Your task to perform on an android device: Go to notification settings Image 0: 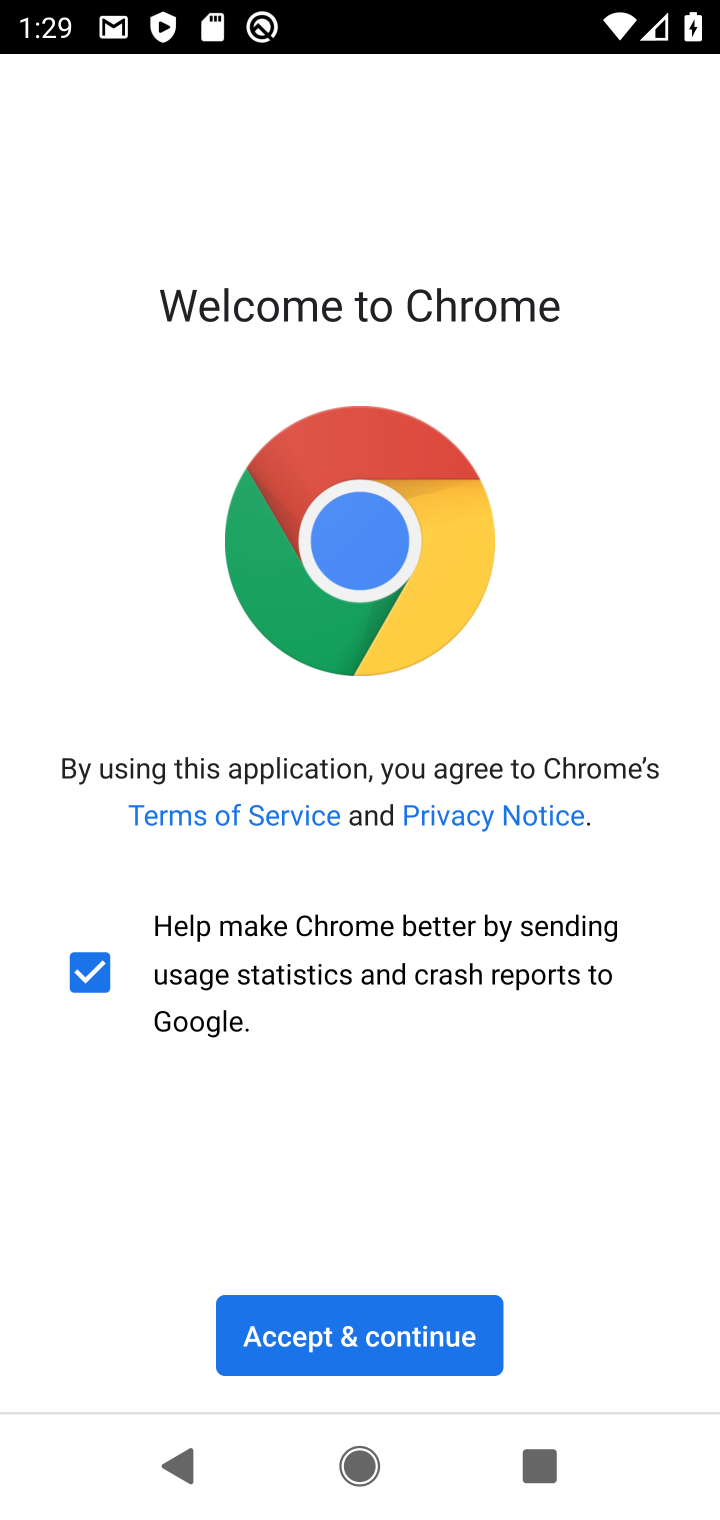
Step 0: press home button
Your task to perform on an android device: Go to notification settings Image 1: 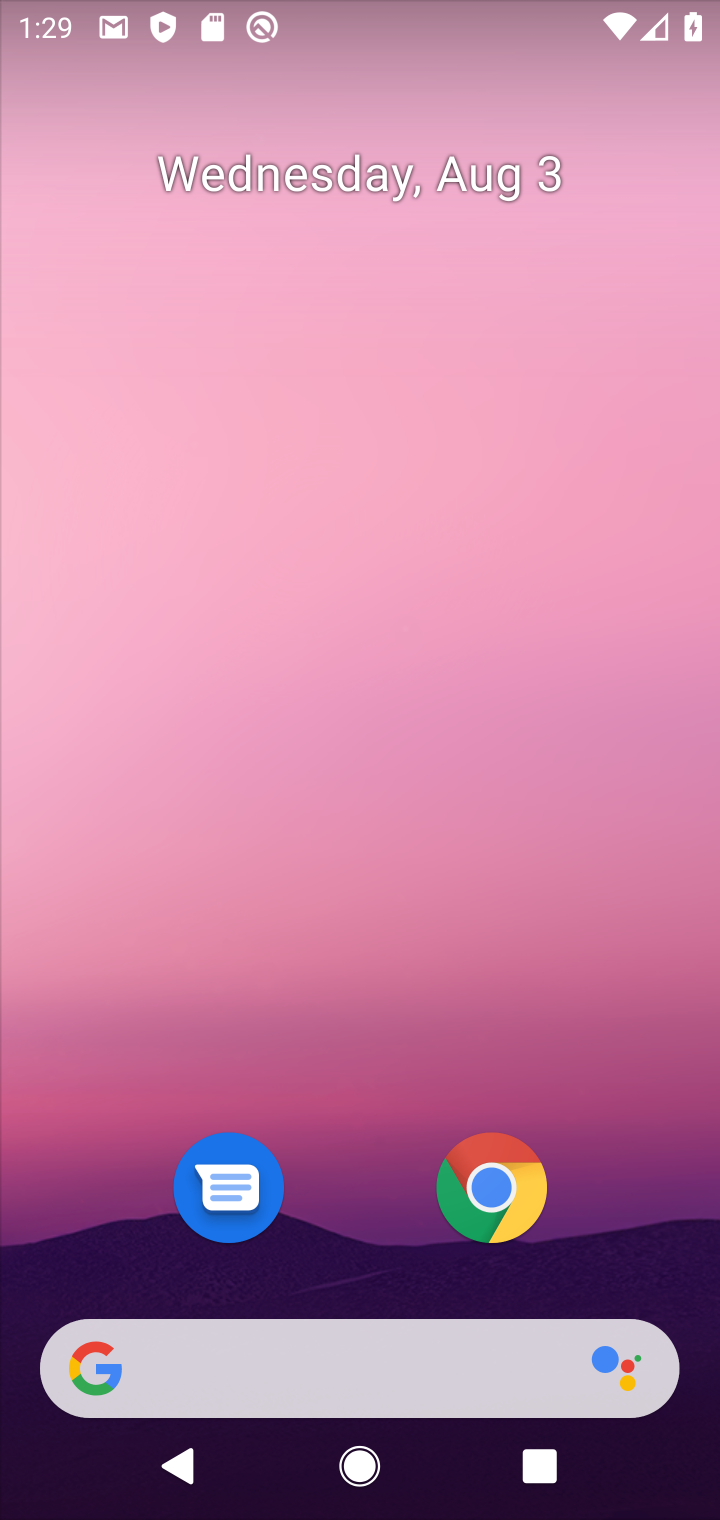
Step 1: drag from (359, 1204) to (322, 178)
Your task to perform on an android device: Go to notification settings Image 2: 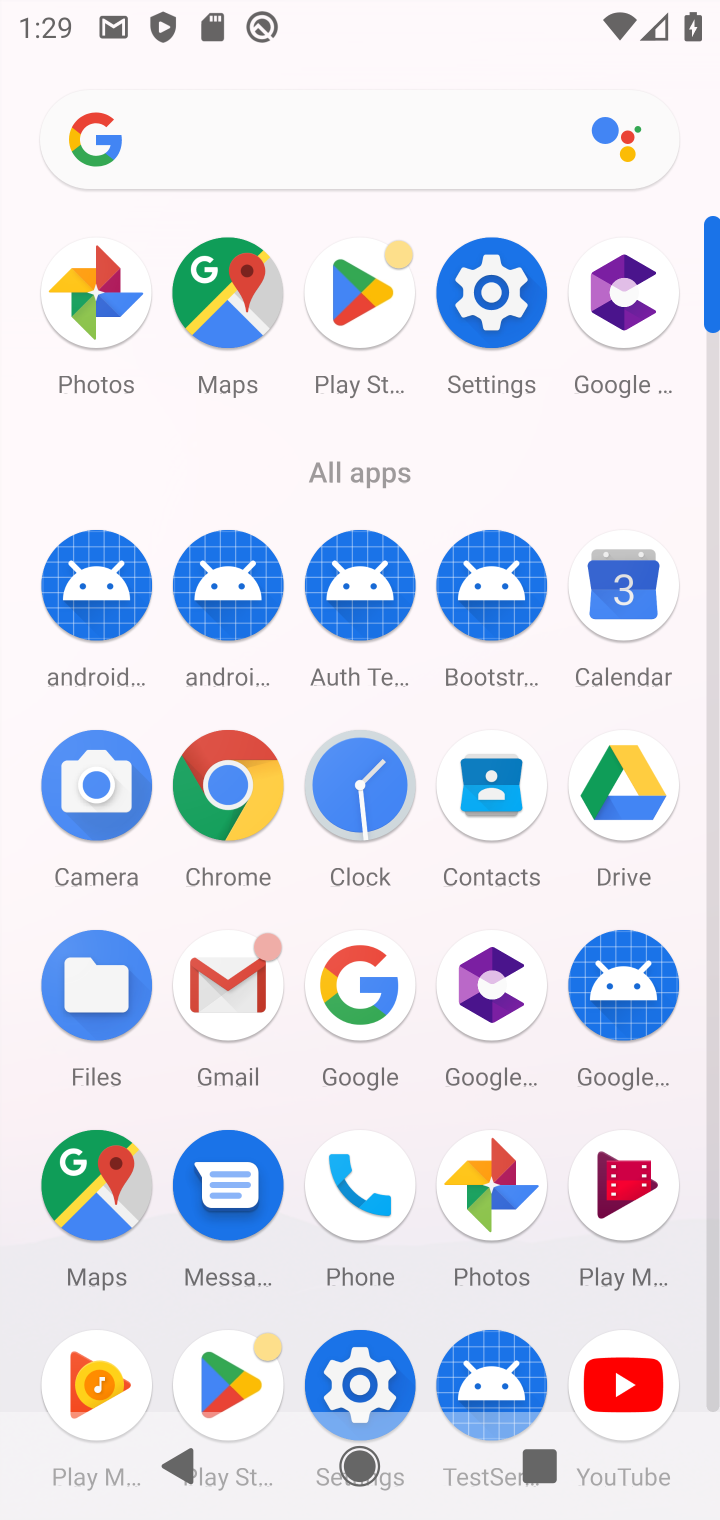
Step 2: click (489, 283)
Your task to perform on an android device: Go to notification settings Image 3: 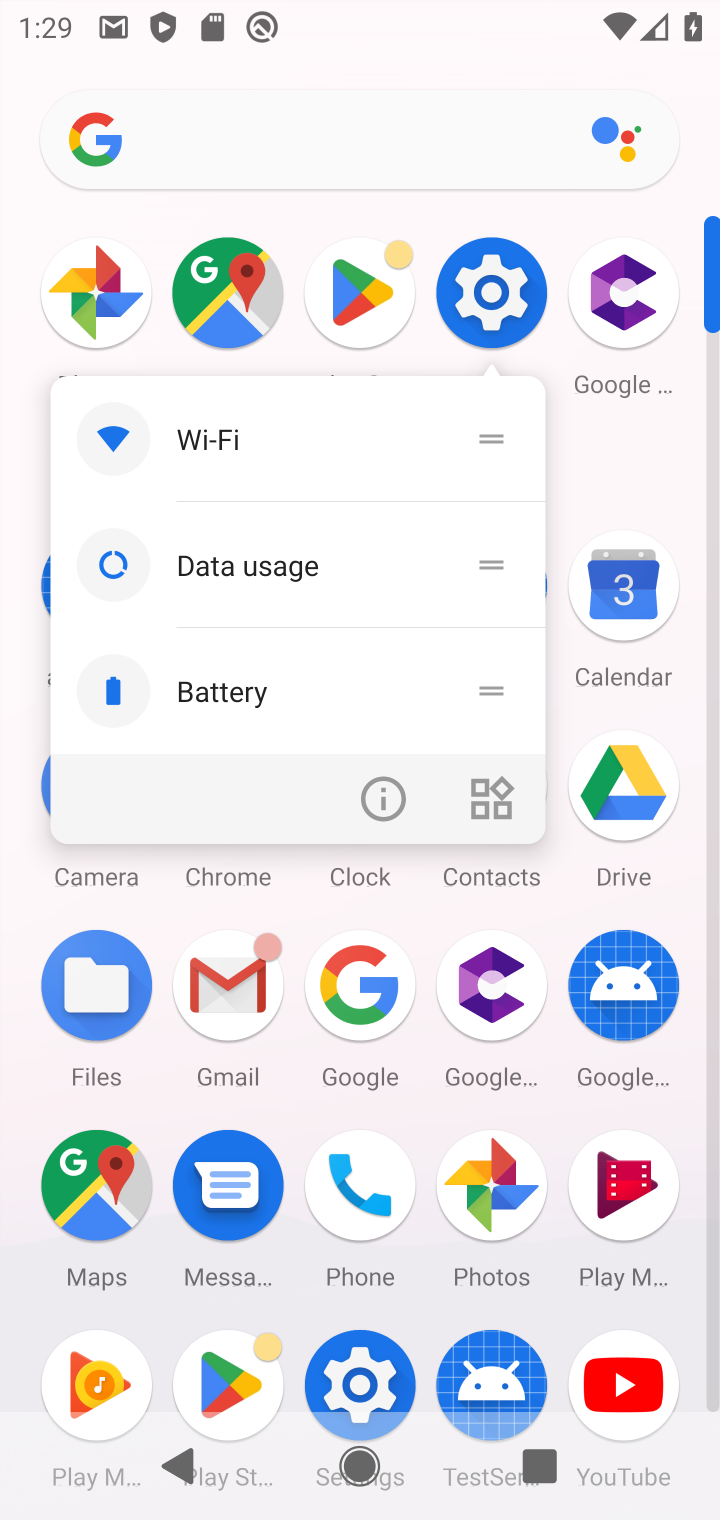
Step 3: click (489, 283)
Your task to perform on an android device: Go to notification settings Image 4: 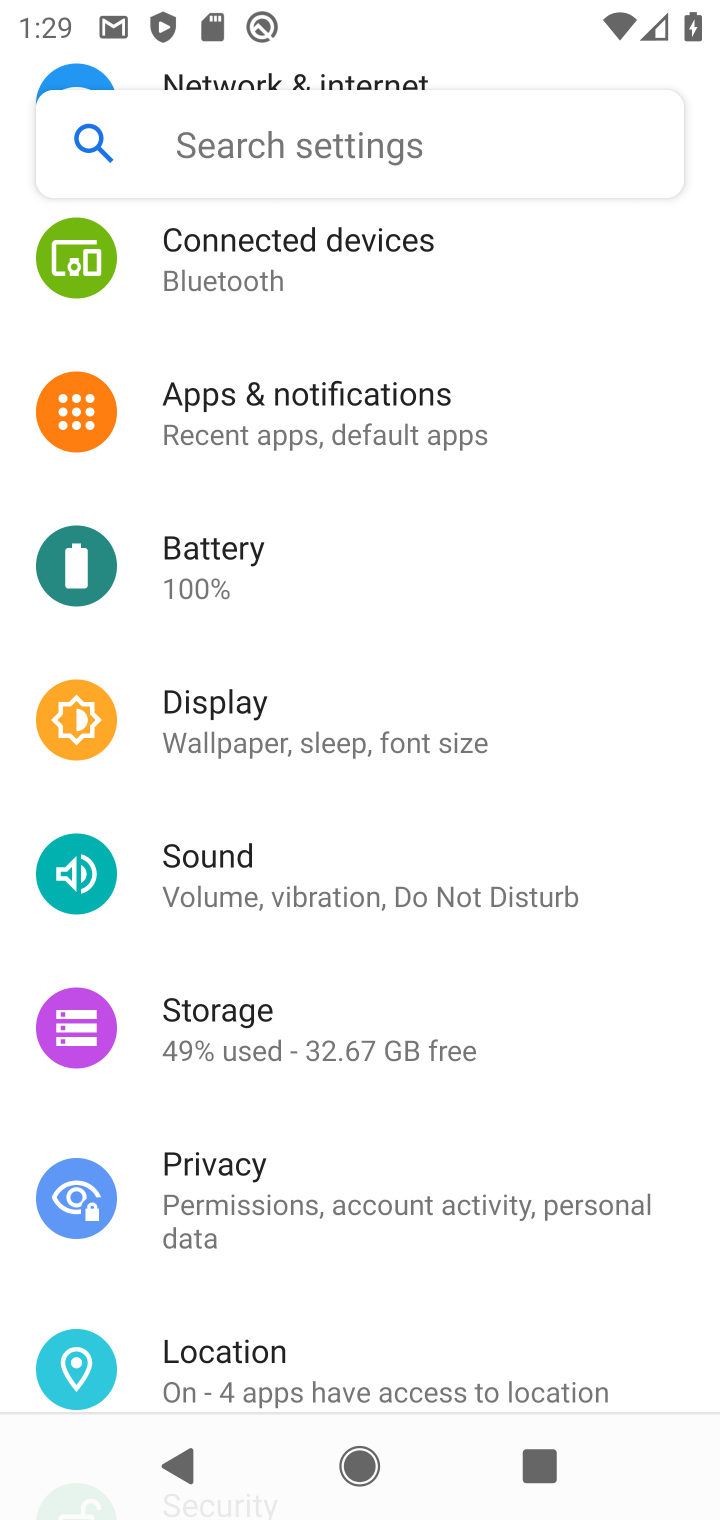
Step 4: click (450, 402)
Your task to perform on an android device: Go to notification settings Image 5: 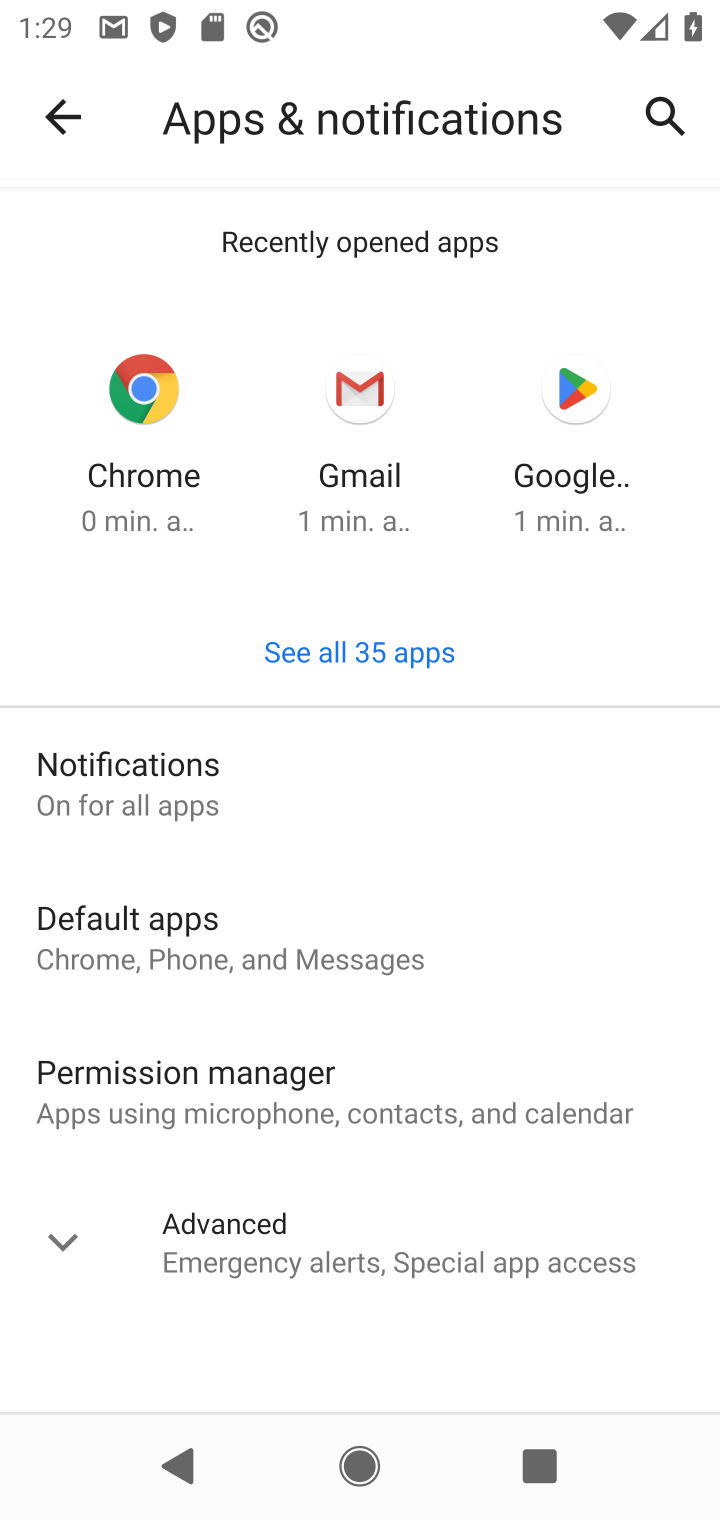
Step 5: click (179, 785)
Your task to perform on an android device: Go to notification settings Image 6: 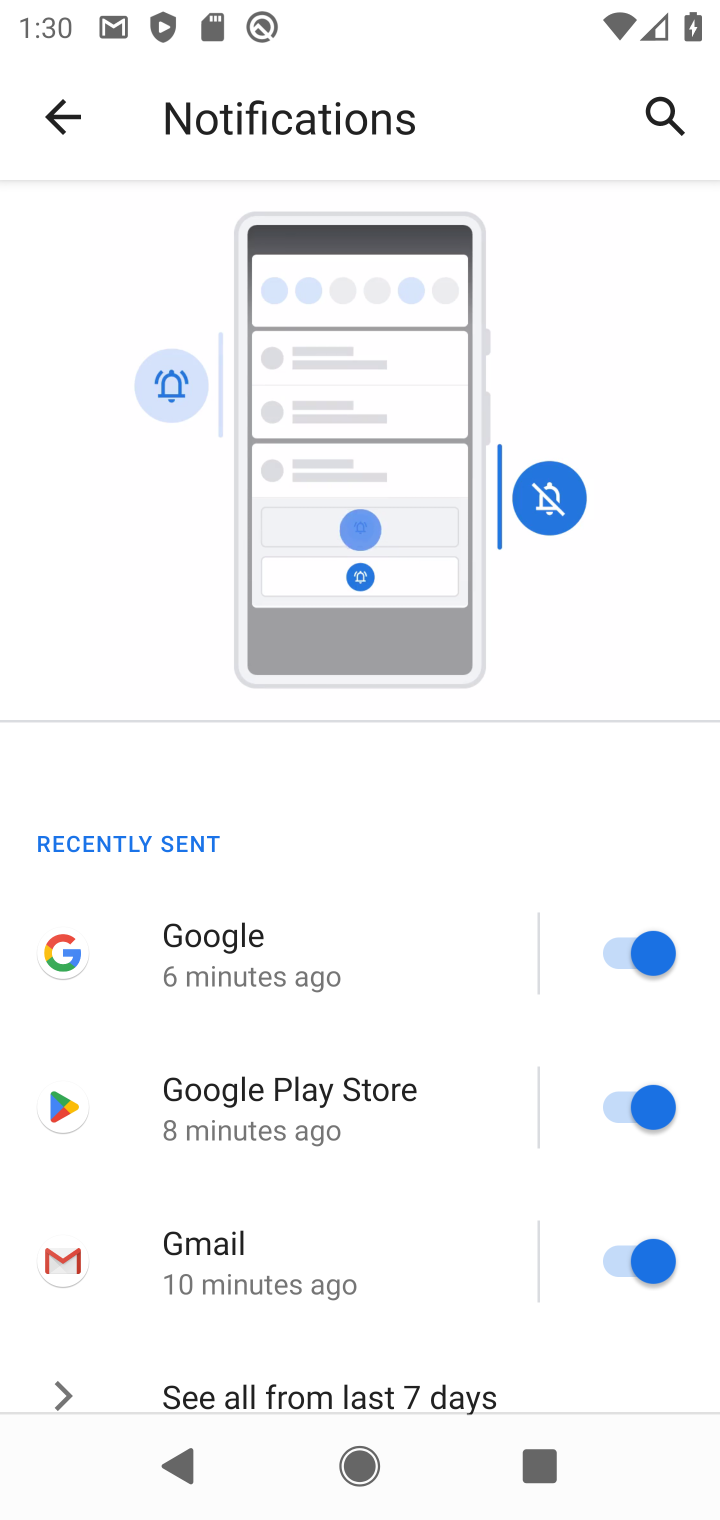
Step 6: task complete